Your task to perform on an android device: Open settings on Google Maps Image 0: 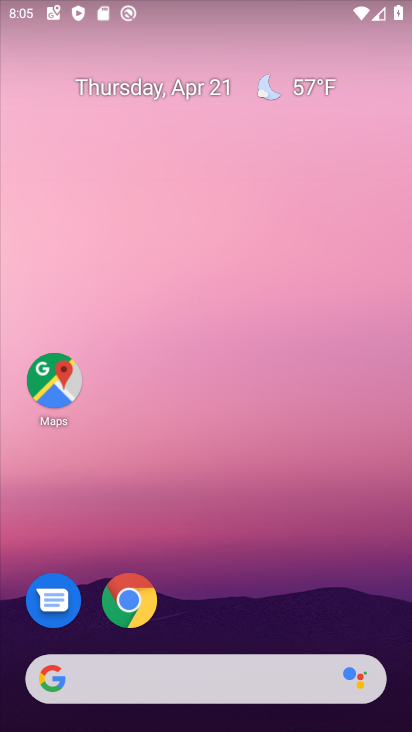
Step 0: click (53, 394)
Your task to perform on an android device: Open settings on Google Maps Image 1: 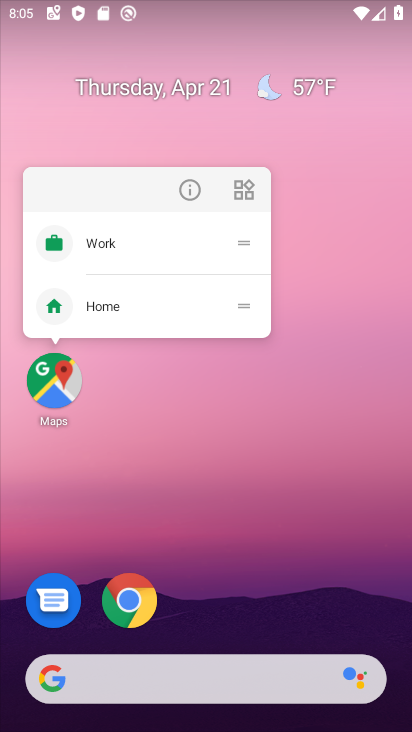
Step 1: click (62, 391)
Your task to perform on an android device: Open settings on Google Maps Image 2: 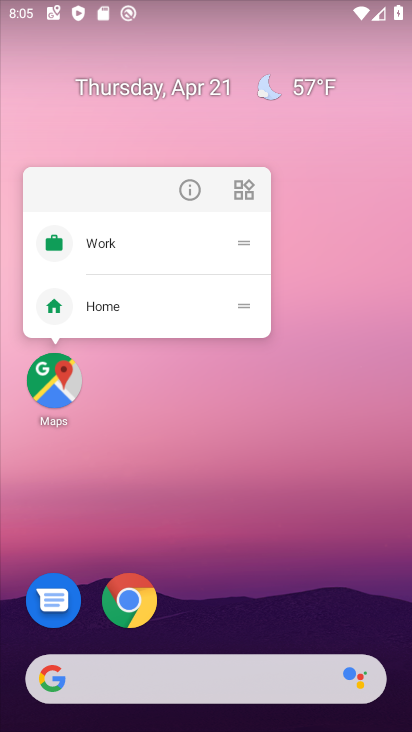
Step 2: click (61, 391)
Your task to perform on an android device: Open settings on Google Maps Image 3: 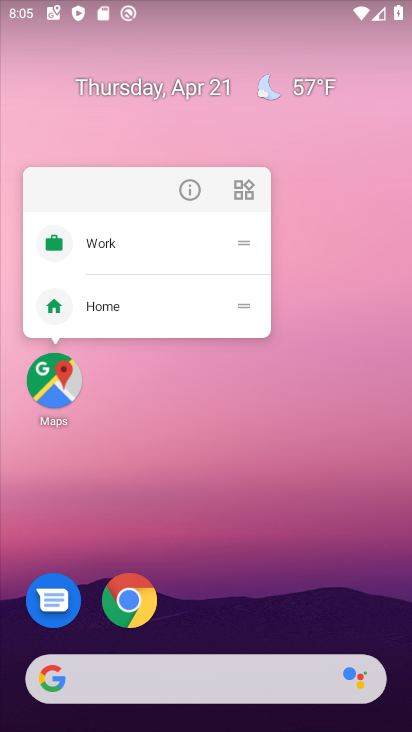
Step 3: click (54, 387)
Your task to perform on an android device: Open settings on Google Maps Image 4: 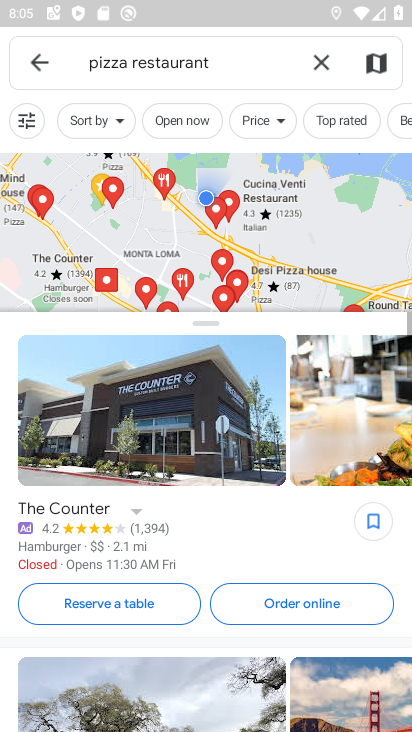
Step 4: click (38, 79)
Your task to perform on an android device: Open settings on Google Maps Image 5: 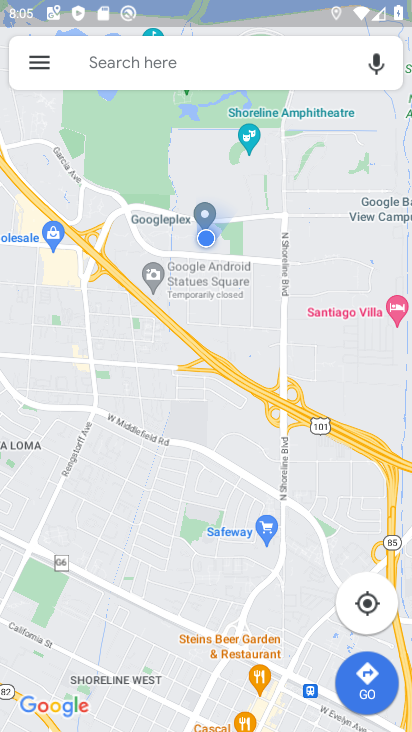
Step 5: click (39, 63)
Your task to perform on an android device: Open settings on Google Maps Image 6: 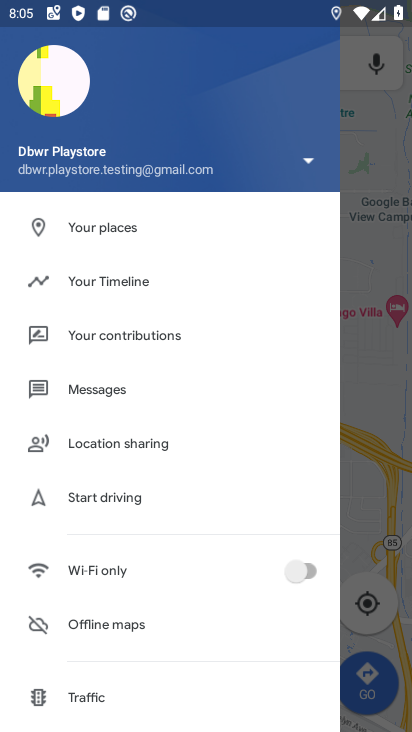
Step 6: drag from (117, 569) to (107, 244)
Your task to perform on an android device: Open settings on Google Maps Image 7: 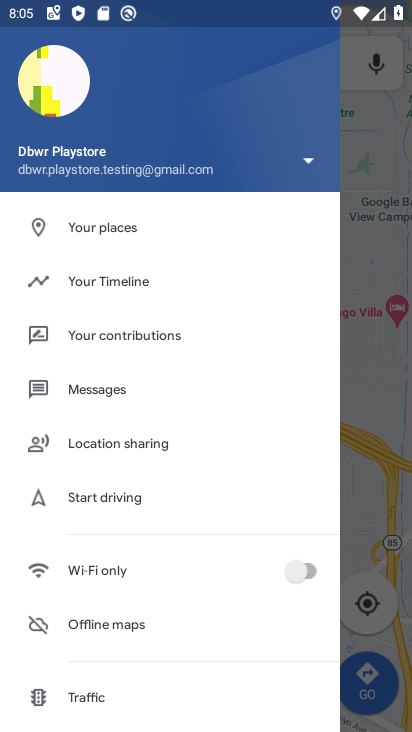
Step 7: click (242, 355)
Your task to perform on an android device: Open settings on Google Maps Image 8: 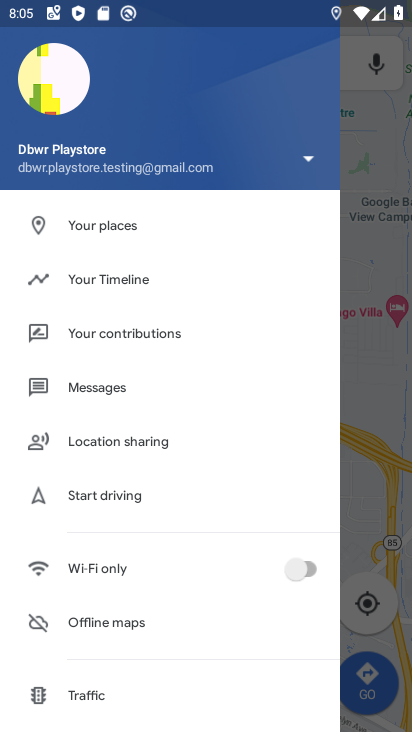
Step 8: drag from (155, 571) to (82, 243)
Your task to perform on an android device: Open settings on Google Maps Image 9: 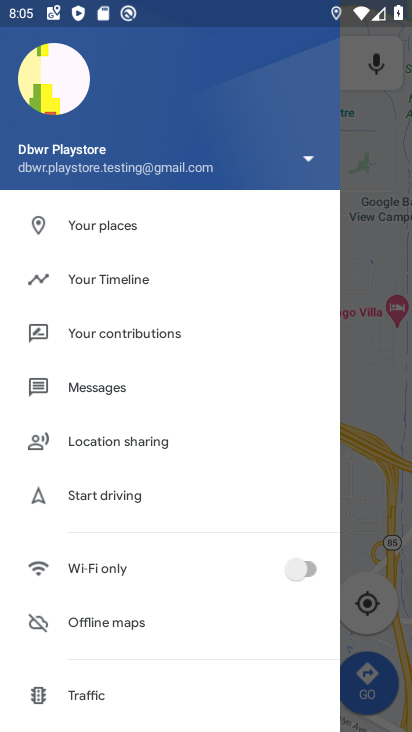
Step 9: drag from (172, 626) to (187, 315)
Your task to perform on an android device: Open settings on Google Maps Image 10: 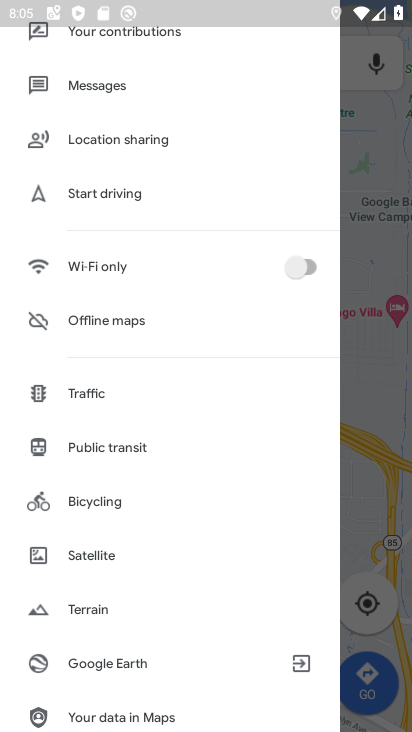
Step 10: drag from (134, 637) to (155, 217)
Your task to perform on an android device: Open settings on Google Maps Image 11: 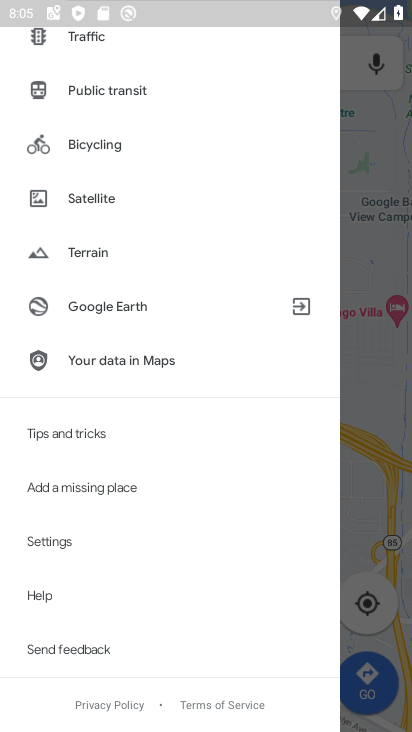
Step 11: drag from (200, 513) to (220, 238)
Your task to perform on an android device: Open settings on Google Maps Image 12: 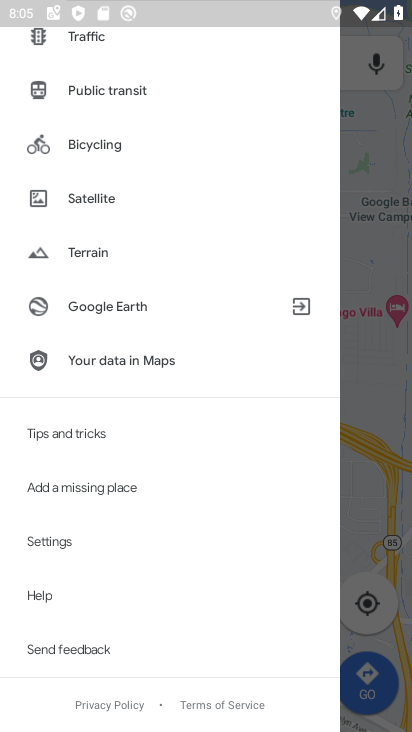
Step 12: click (54, 544)
Your task to perform on an android device: Open settings on Google Maps Image 13: 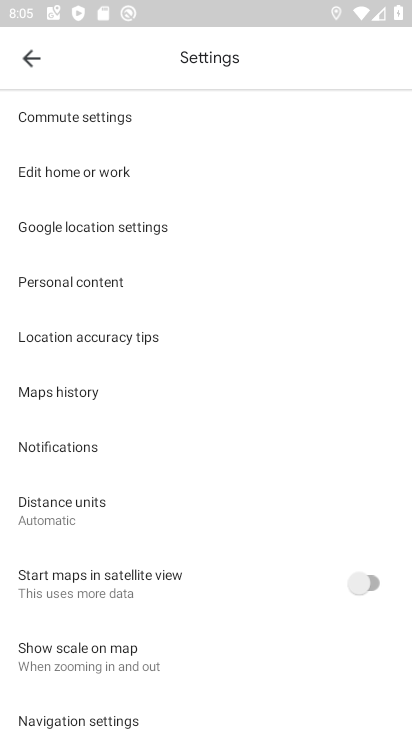
Step 13: task complete